Your task to perform on an android device: Open Youtube and go to "Your channel" Image 0: 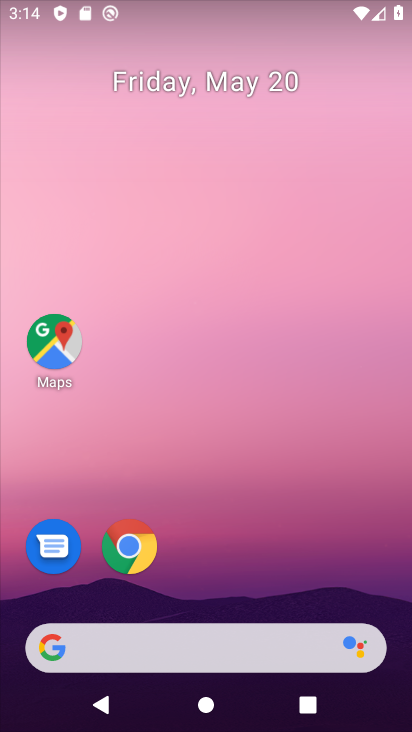
Step 0: drag from (271, 556) to (178, 10)
Your task to perform on an android device: Open Youtube and go to "Your channel" Image 1: 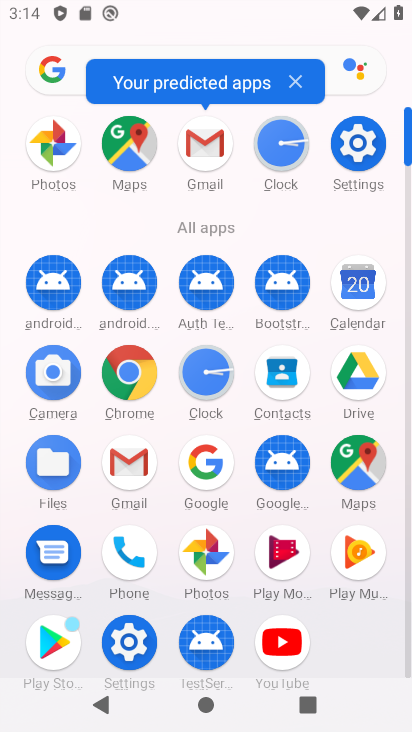
Step 1: click (282, 644)
Your task to perform on an android device: Open Youtube and go to "Your channel" Image 2: 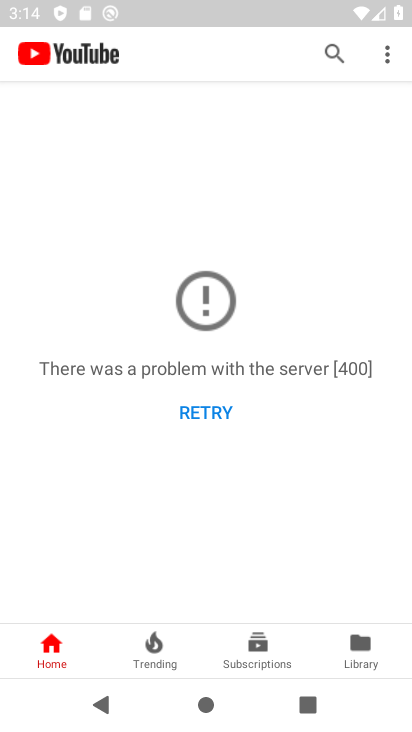
Step 2: click (210, 416)
Your task to perform on an android device: Open Youtube and go to "Your channel" Image 3: 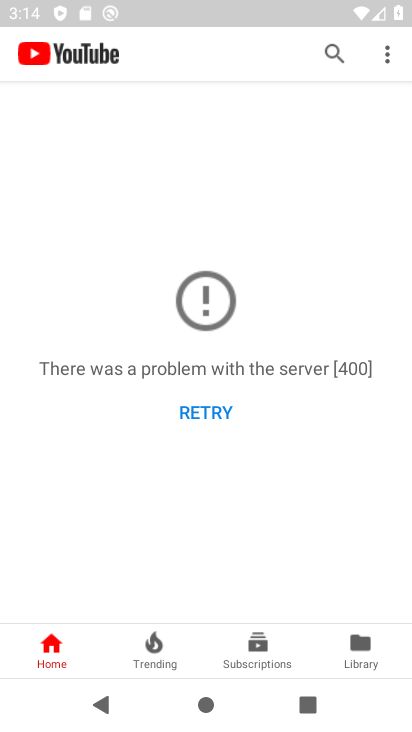
Step 3: click (210, 416)
Your task to perform on an android device: Open Youtube and go to "Your channel" Image 4: 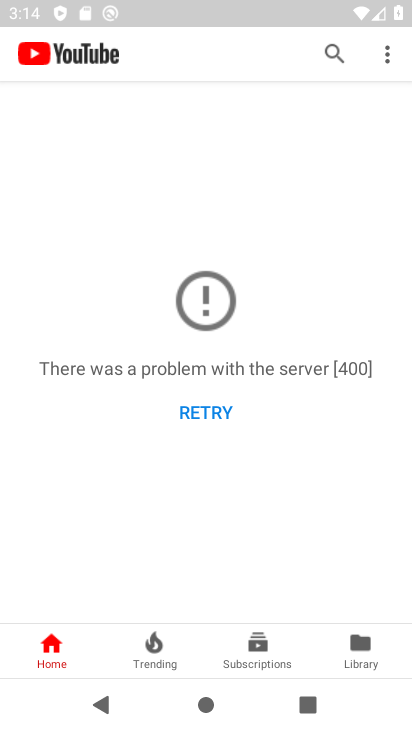
Step 4: click (203, 411)
Your task to perform on an android device: Open Youtube and go to "Your channel" Image 5: 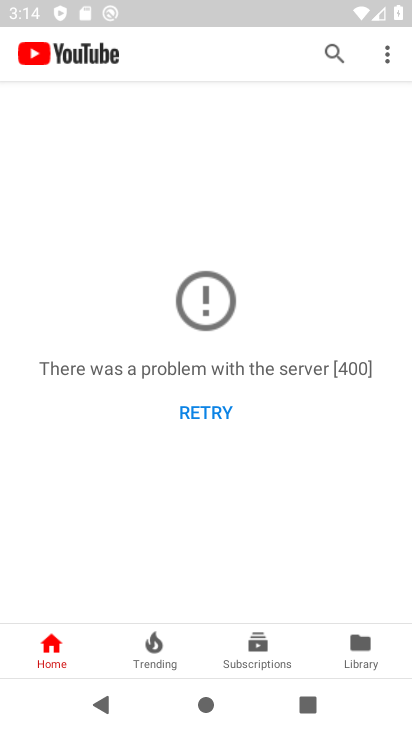
Step 5: task complete